Your task to perform on an android device: check battery use Image 0: 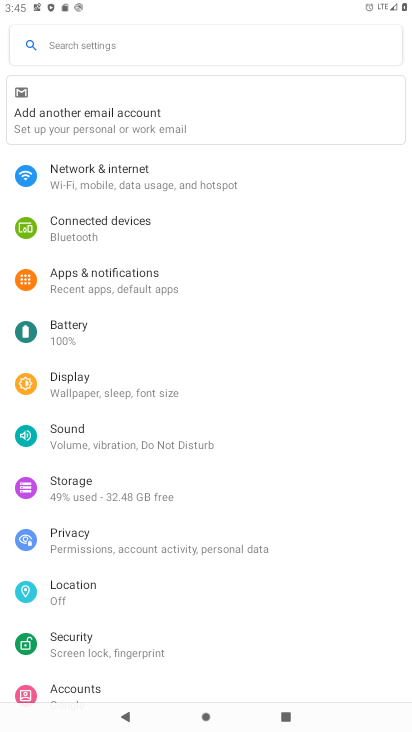
Step 0: click (86, 333)
Your task to perform on an android device: check battery use Image 1: 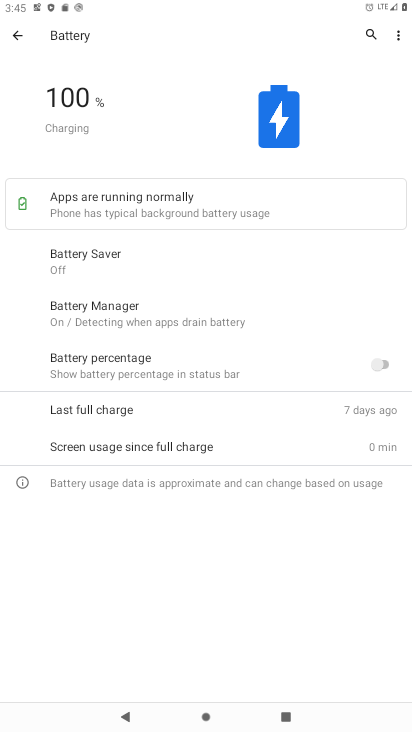
Step 1: click (396, 32)
Your task to perform on an android device: check battery use Image 2: 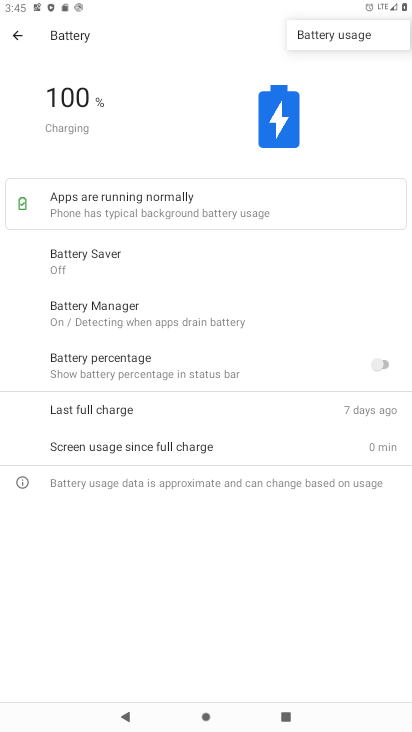
Step 2: click (364, 34)
Your task to perform on an android device: check battery use Image 3: 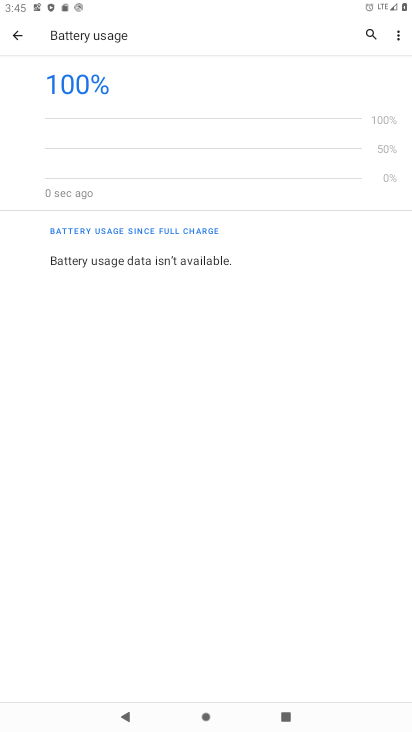
Step 3: task complete